Your task to perform on an android device: Show me popular games on the Play Store Image 0: 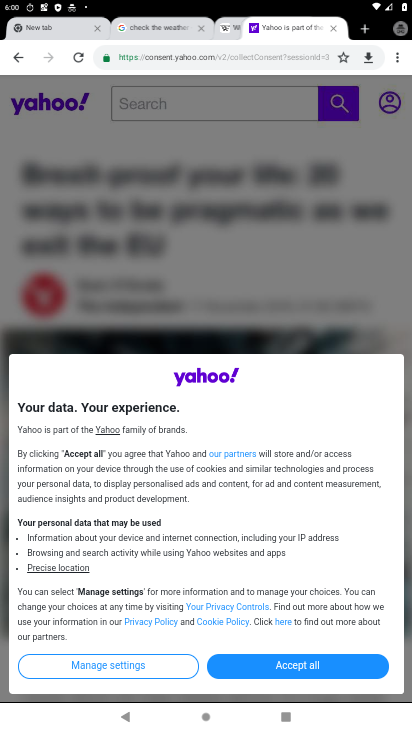
Step 0: press home button
Your task to perform on an android device: Show me popular games on the Play Store Image 1: 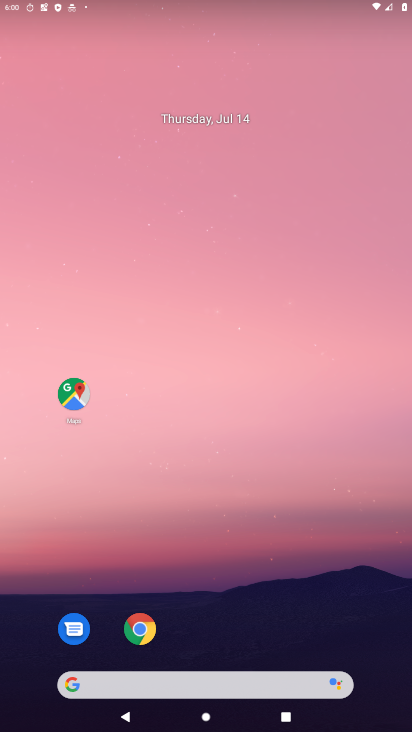
Step 1: drag from (238, 668) to (243, 14)
Your task to perform on an android device: Show me popular games on the Play Store Image 2: 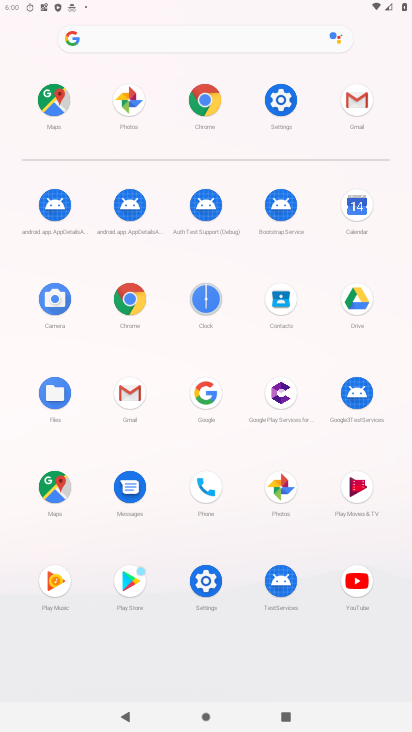
Step 2: click (122, 581)
Your task to perform on an android device: Show me popular games on the Play Store Image 3: 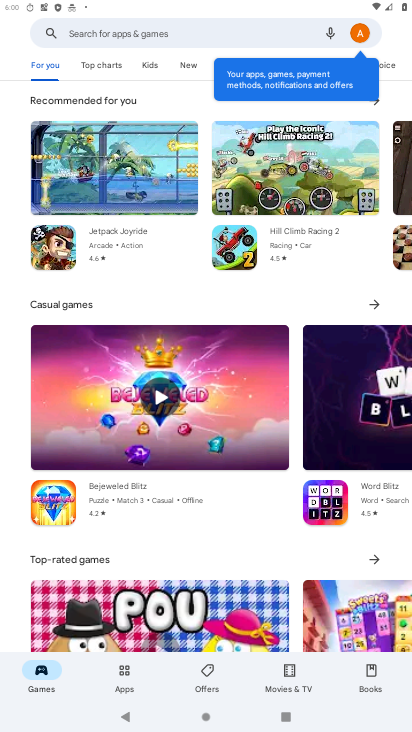
Step 3: task complete